Your task to perform on an android device: Open Amazon Image 0: 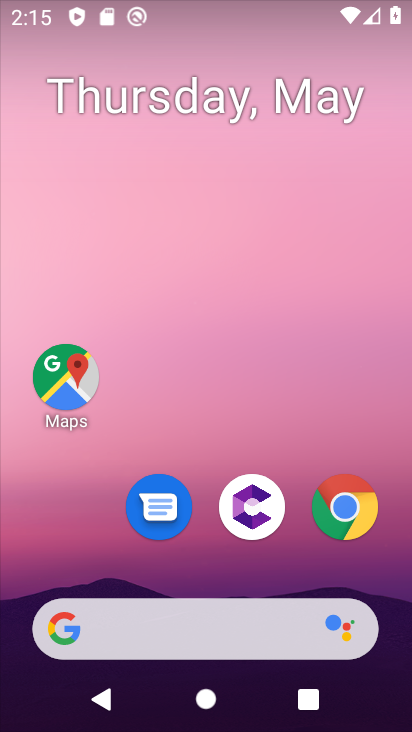
Step 0: press home button
Your task to perform on an android device: Open Amazon Image 1: 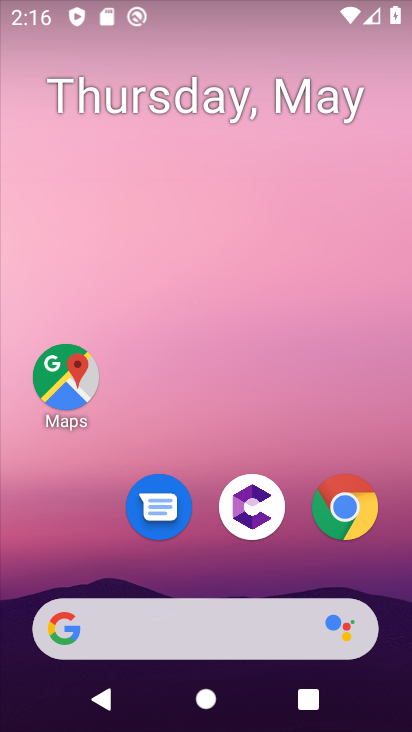
Step 1: click (403, 375)
Your task to perform on an android device: Open Amazon Image 2: 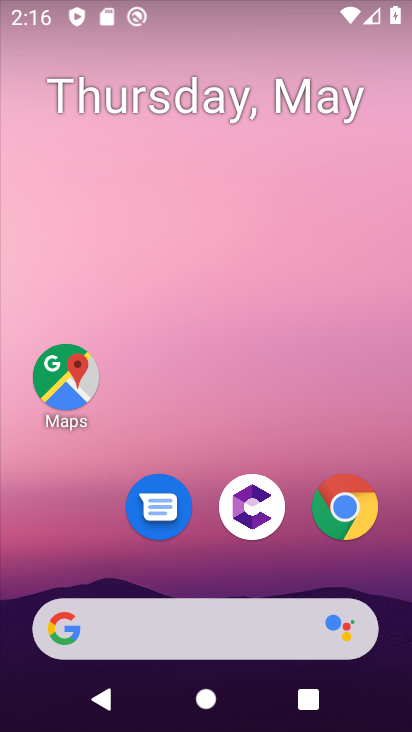
Step 2: click (56, 635)
Your task to perform on an android device: Open Amazon Image 3: 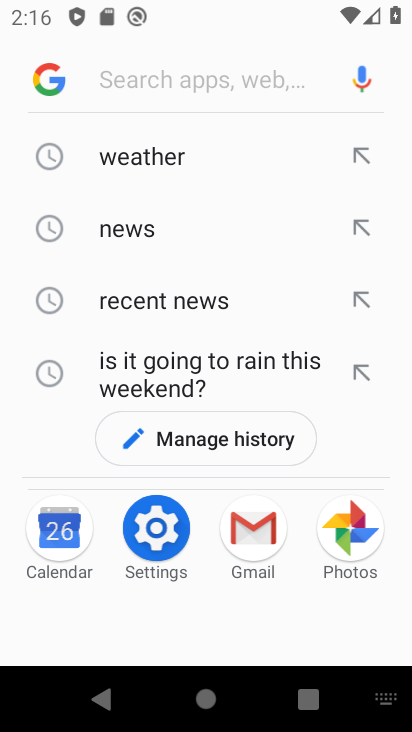
Step 3: type "Amazon"
Your task to perform on an android device: Open Amazon Image 4: 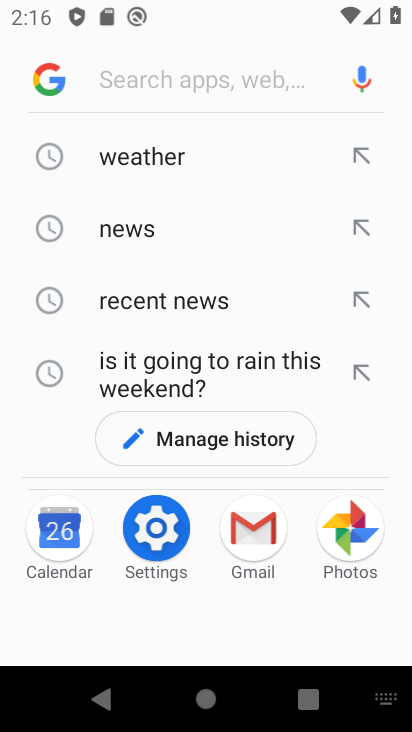
Step 4: click (129, 52)
Your task to perform on an android device: Open Amazon Image 5: 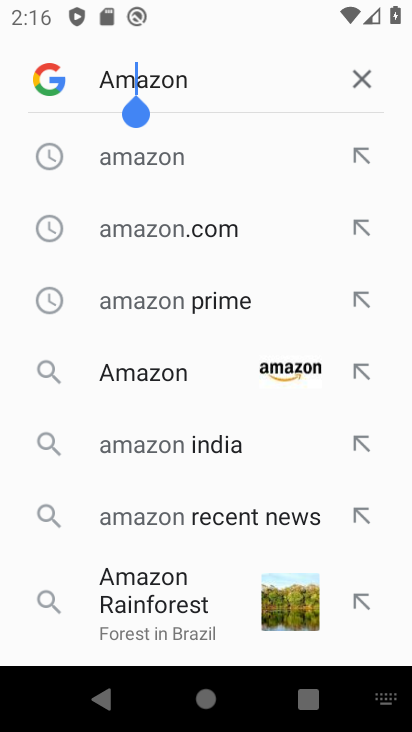
Step 5: click (155, 162)
Your task to perform on an android device: Open Amazon Image 6: 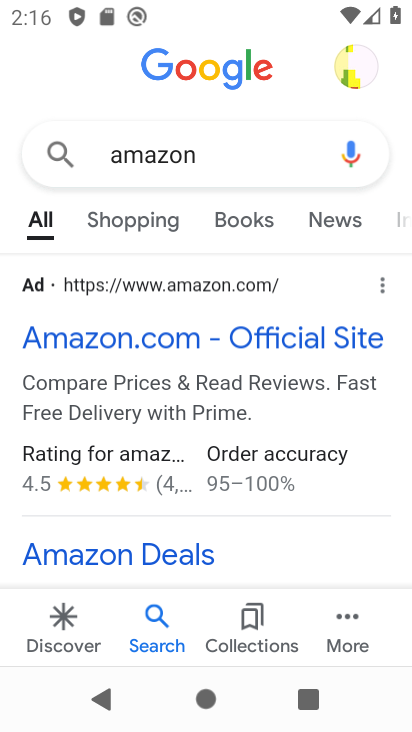
Step 6: click (177, 349)
Your task to perform on an android device: Open Amazon Image 7: 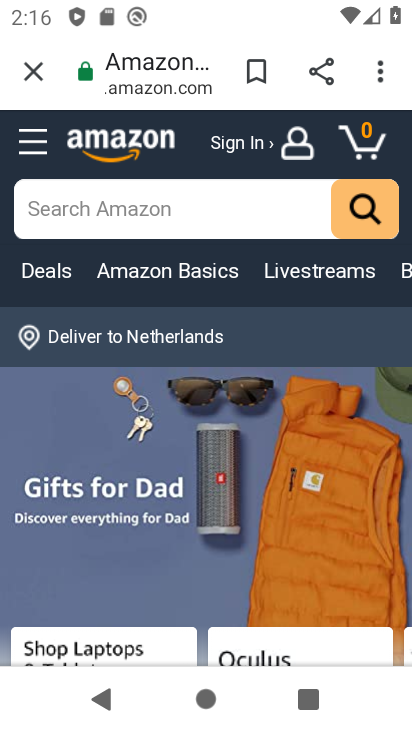
Step 7: task complete